Your task to perform on an android device: change timer sound Image 0: 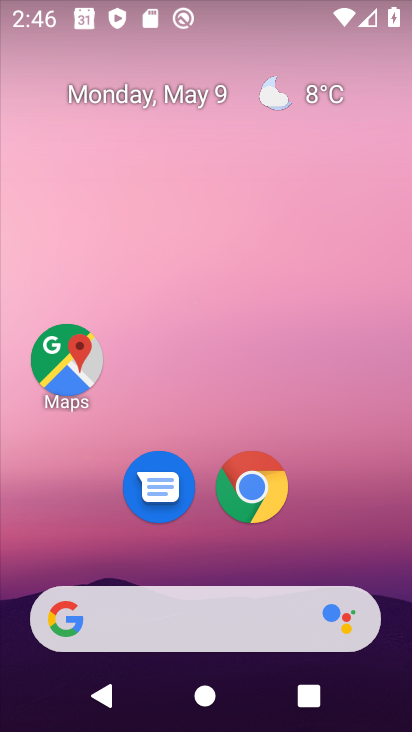
Step 0: press home button
Your task to perform on an android device: change timer sound Image 1: 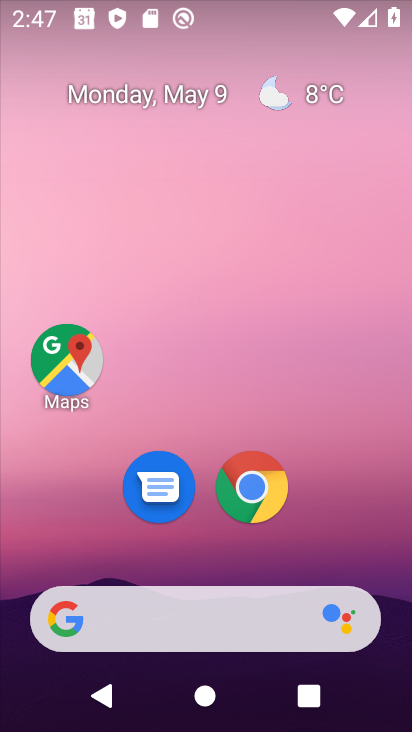
Step 1: drag from (212, 552) to (211, 101)
Your task to perform on an android device: change timer sound Image 2: 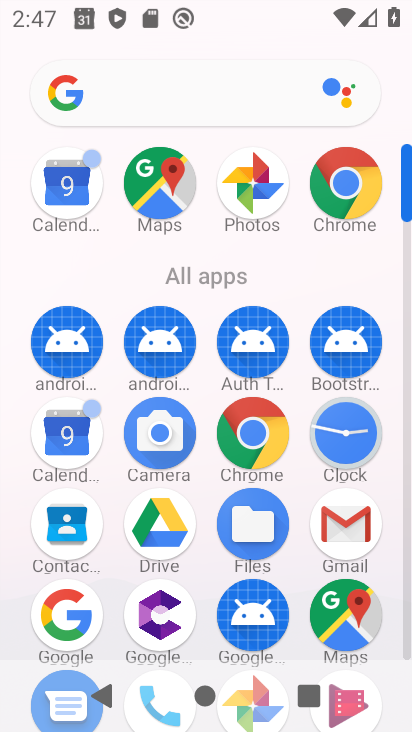
Step 2: click (343, 426)
Your task to perform on an android device: change timer sound Image 3: 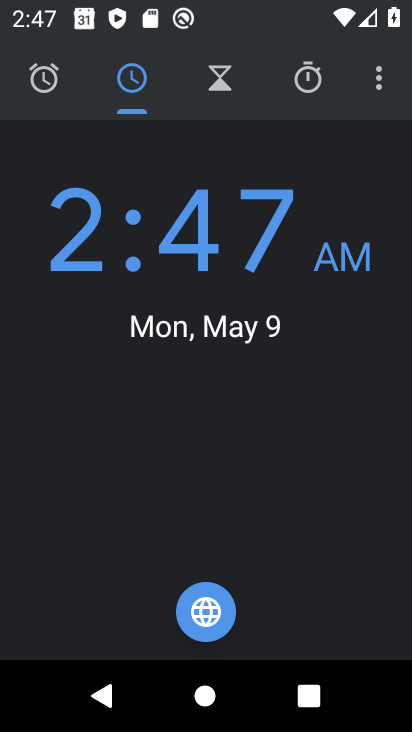
Step 3: click (386, 75)
Your task to perform on an android device: change timer sound Image 4: 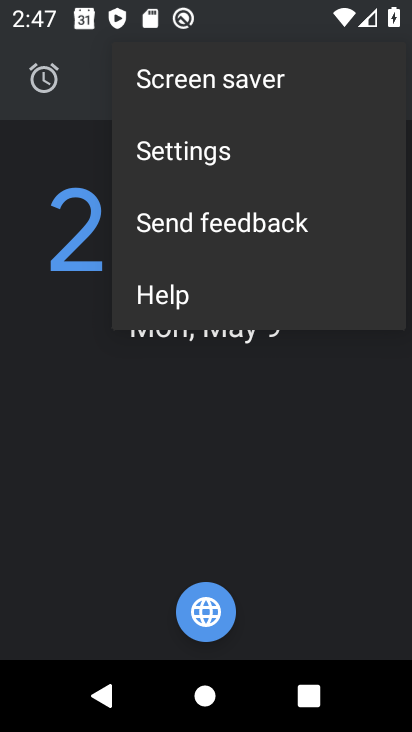
Step 4: click (233, 153)
Your task to perform on an android device: change timer sound Image 5: 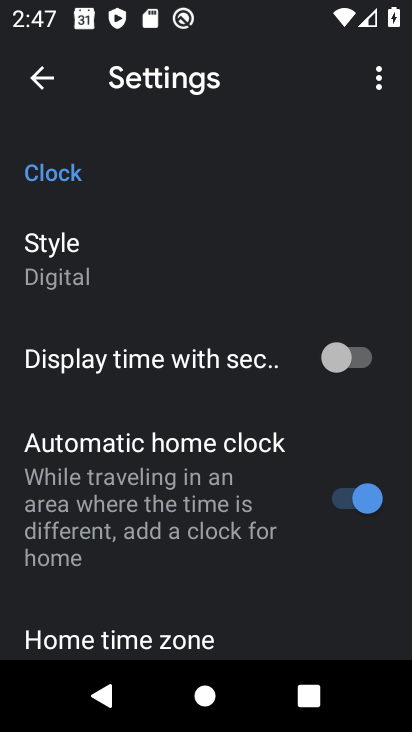
Step 5: drag from (242, 610) to (198, 231)
Your task to perform on an android device: change timer sound Image 6: 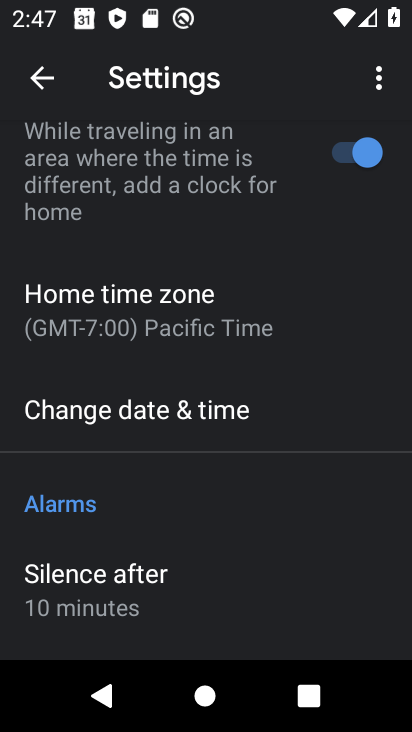
Step 6: drag from (192, 574) to (166, 322)
Your task to perform on an android device: change timer sound Image 7: 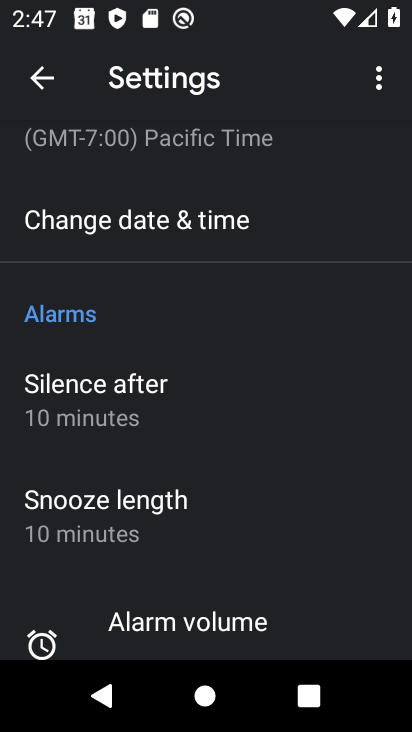
Step 7: drag from (277, 624) to (258, 197)
Your task to perform on an android device: change timer sound Image 8: 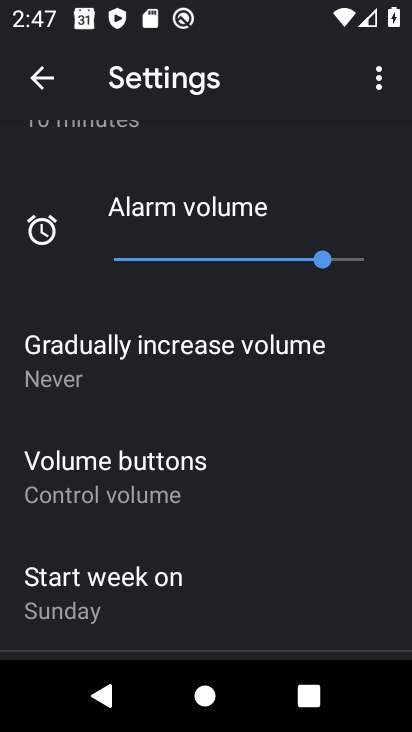
Step 8: drag from (225, 592) to (216, 317)
Your task to perform on an android device: change timer sound Image 9: 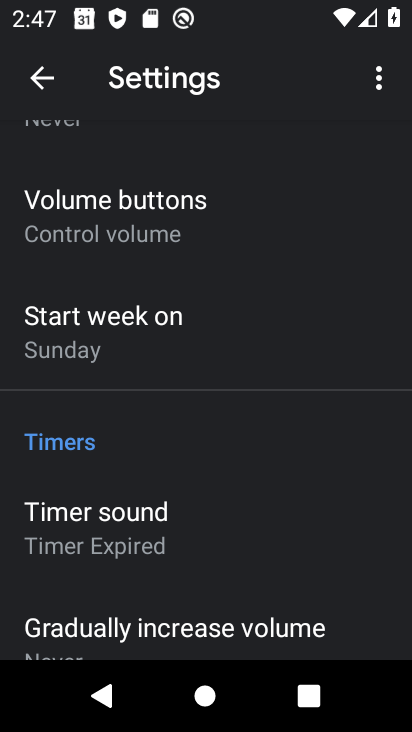
Step 9: click (208, 534)
Your task to perform on an android device: change timer sound Image 10: 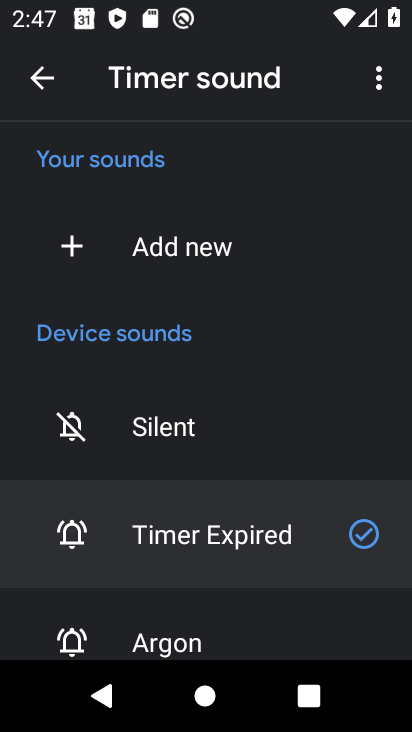
Step 10: drag from (238, 628) to (225, 283)
Your task to perform on an android device: change timer sound Image 11: 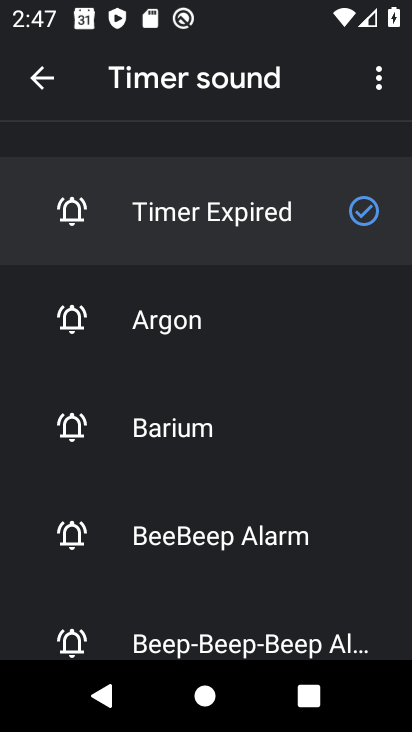
Step 11: click (108, 644)
Your task to perform on an android device: change timer sound Image 12: 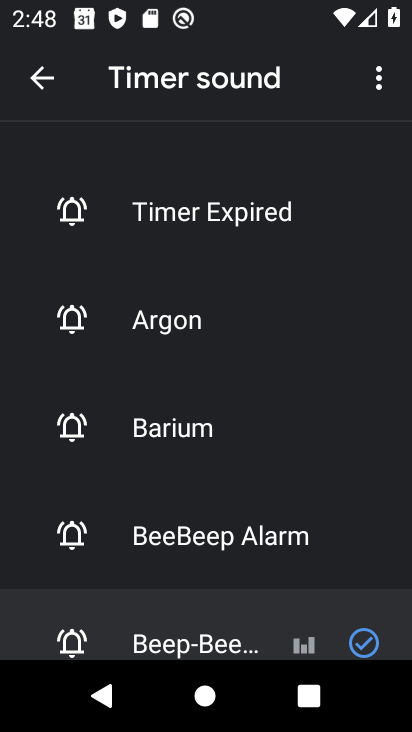
Step 12: task complete